Your task to perform on an android device: Open the calendar and show me this week's events Image 0: 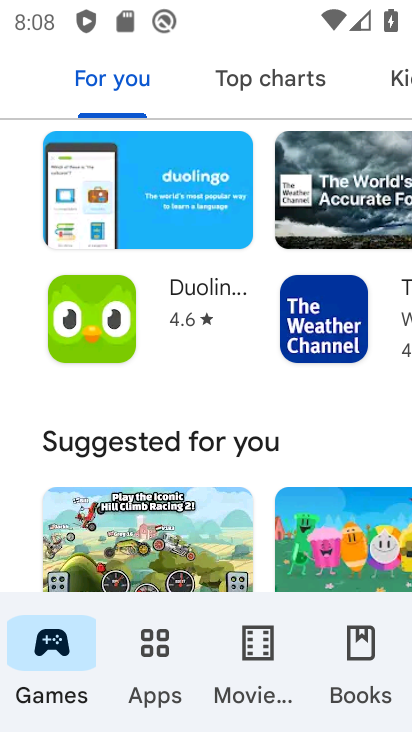
Step 0: press home button
Your task to perform on an android device: Open the calendar and show me this week's events Image 1: 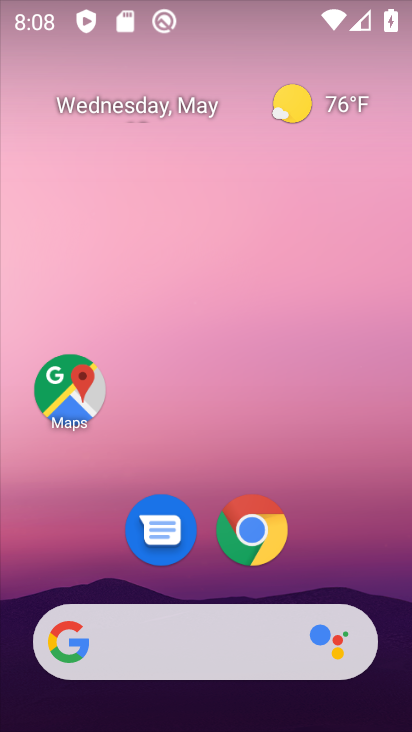
Step 1: drag from (349, 559) to (330, 237)
Your task to perform on an android device: Open the calendar and show me this week's events Image 2: 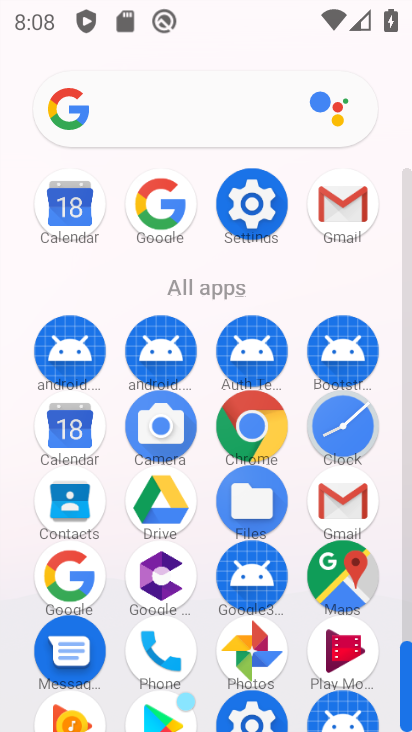
Step 2: click (62, 427)
Your task to perform on an android device: Open the calendar and show me this week's events Image 3: 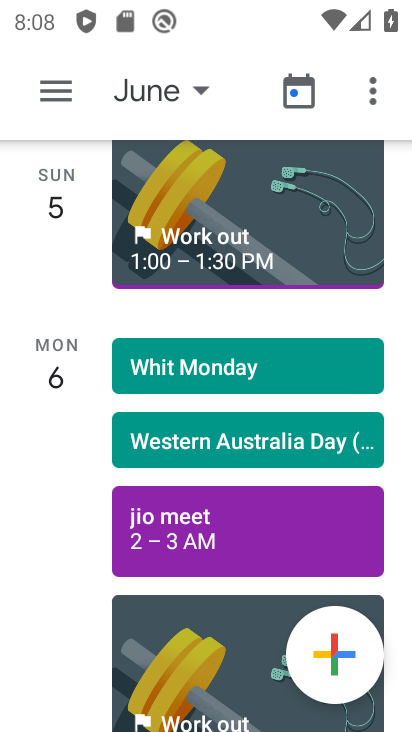
Step 3: click (169, 89)
Your task to perform on an android device: Open the calendar and show me this week's events Image 4: 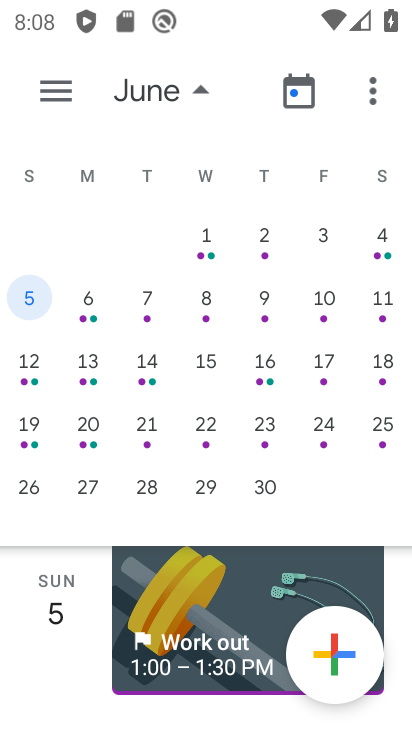
Step 4: drag from (139, 299) to (377, 305)
Your task to perform on an android device: Open the calendar and show me this week's events Image 5: 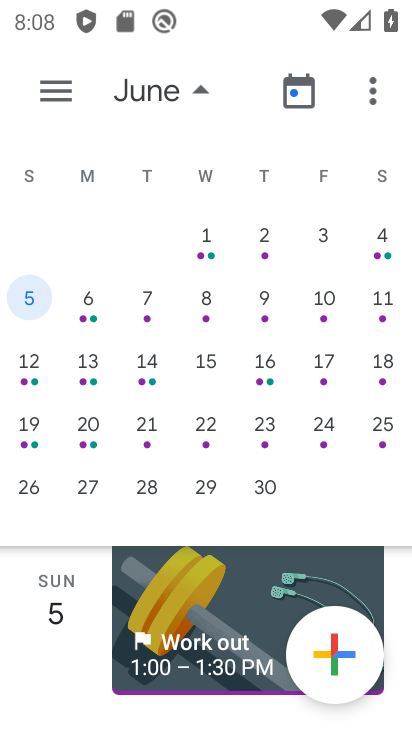
Step 5: drag from (142, 261) to (354, 268)
Your task to perform on an android device: Open the calendar and show me this week's events Image 6: 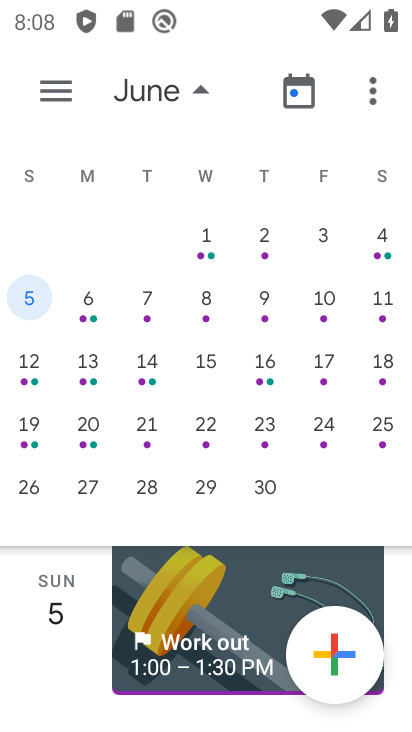
Step 6: drag from (100, 244) to (382, 244)
Your task to perform on an android device: Open the calendar and show me this week's events Image 7: 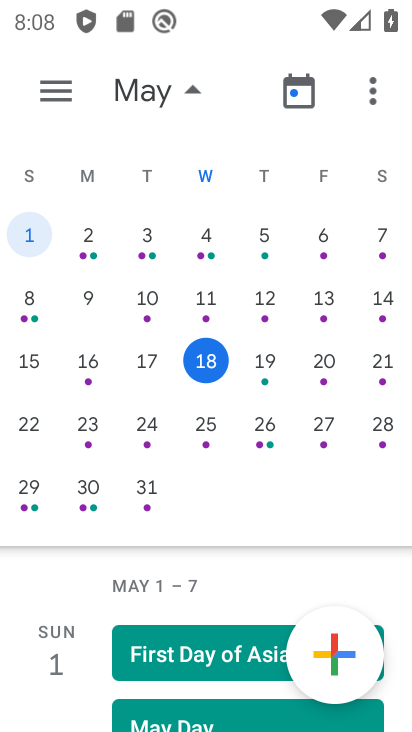
Step 7: click (182, 367)
Your task to perform on an android device: Open the calendar and show me this week's events Image 8: 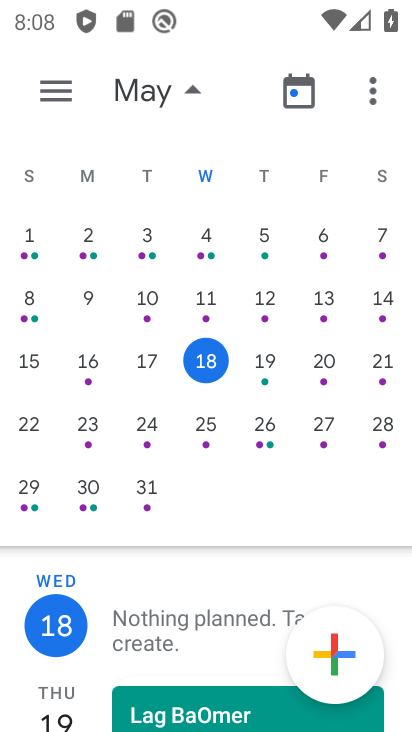
Step 8: task complete